Your task to perform on an android device: toggle improve location accuracy Image 0: 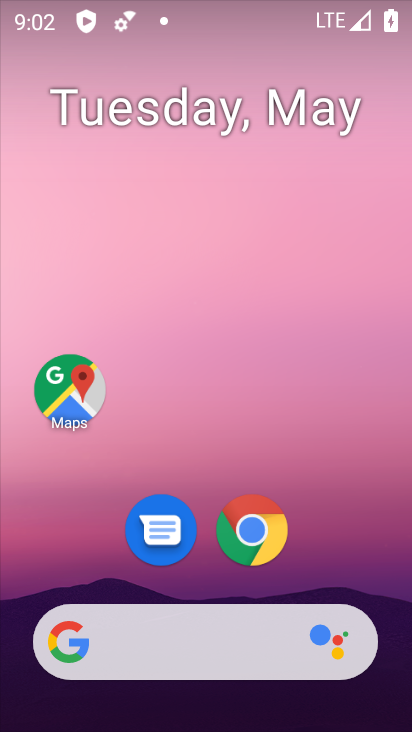
Step 0: drag from (344, 544) to (339, 172)
Your task to perform on an android device: toggle improve location accuracy Image 1: 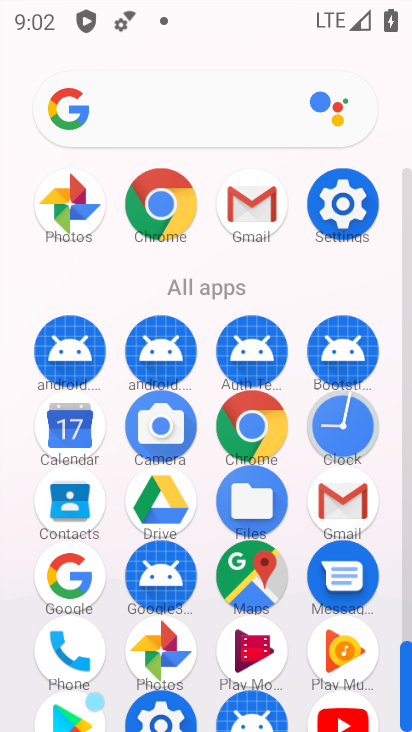
Step 1: click (380, 193)
Your task to perform on an android device: toggle improve location accuracy Image 2: 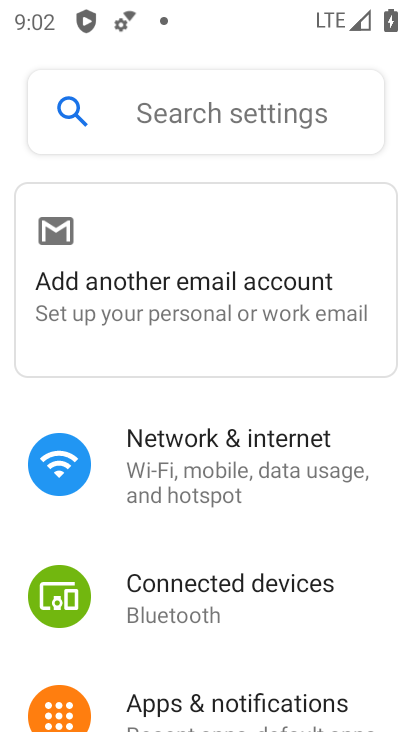
Step 2: drag from (245, 640) to (273, 124)
Your task to perform on an android device: toggle improve location accuracy Image 3: 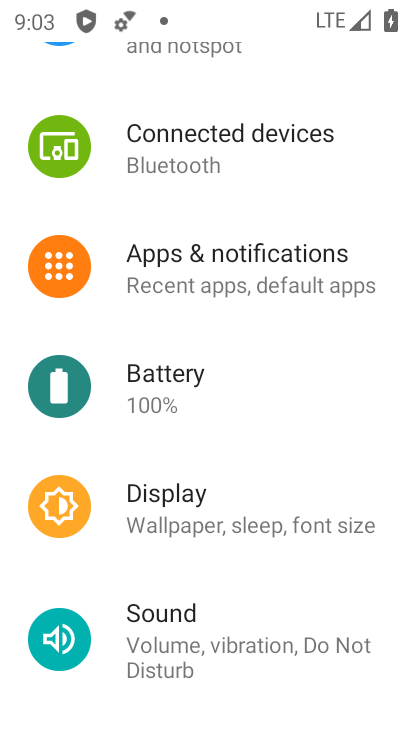
Step 3: drag from (223, 572) to (282, 143)
Your task to perform on an android device: toggle improve location accuracy Image 4: 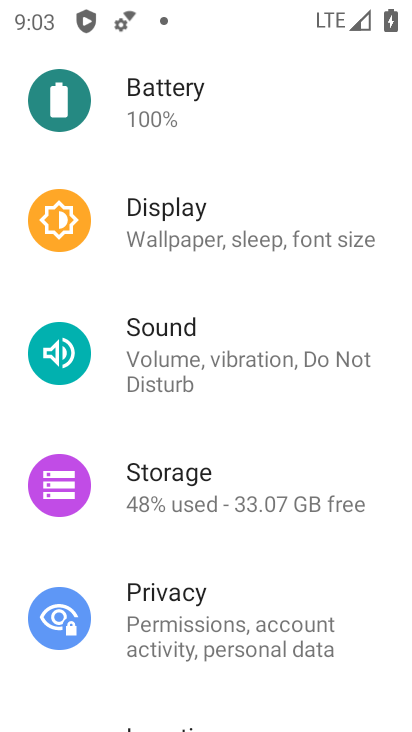
Step 4: drag from (279, 224) to (349, 34)
Your task to perform on an android device: toggle improve location accuracy Image 5: 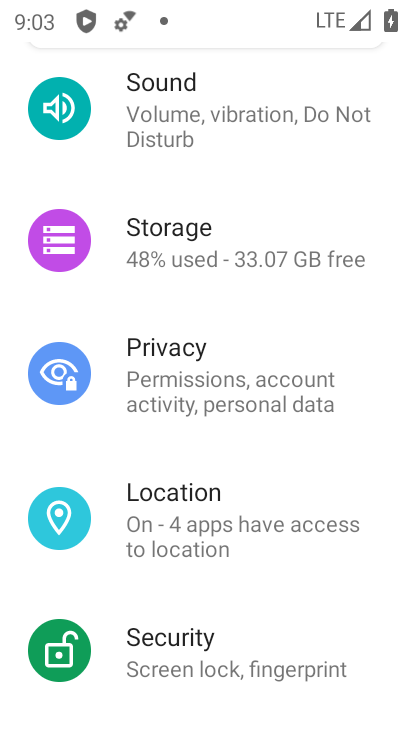
Step 5: click (196, 504)
Your task to perform on an android device: toggle improve location accuracy Image 6: 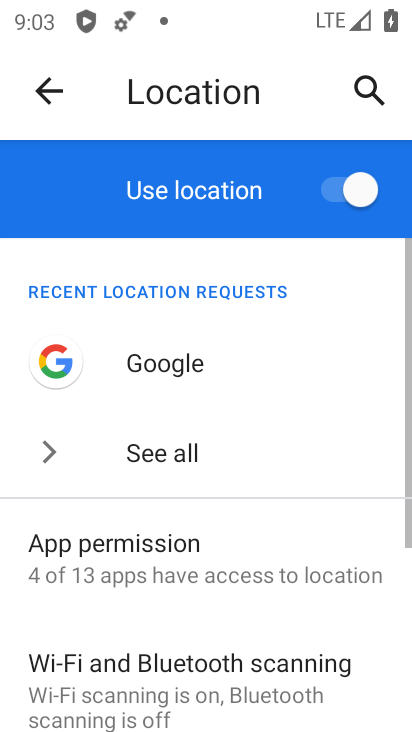
Step 6: drag from (281, 608) to (398, 68)
Your task to perform on an android device: toggle improve location accuracy Image 7: 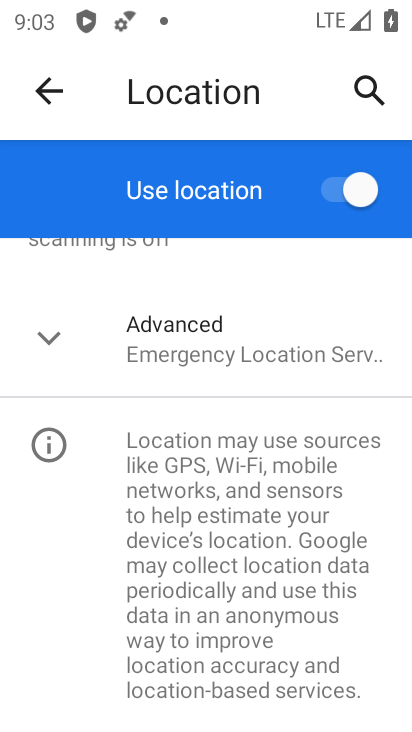
Step 7: click (218, 370)
Your task to perform on an android device: toggle improve location accuracy Image 8: 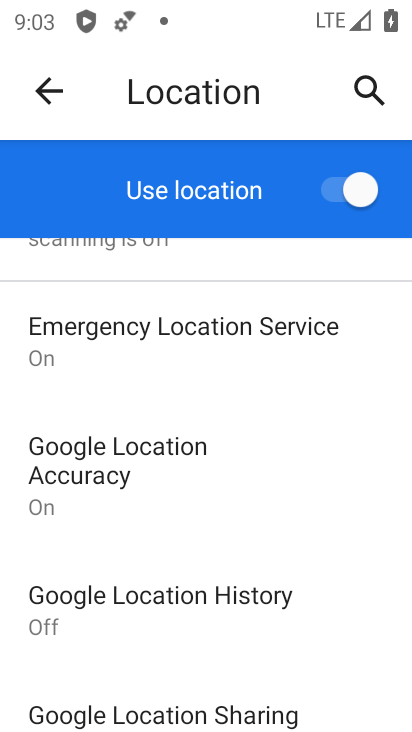
Step 8: click (122, 484)
Your task to perform on an android device: toggle improve location accuracy Image 9: 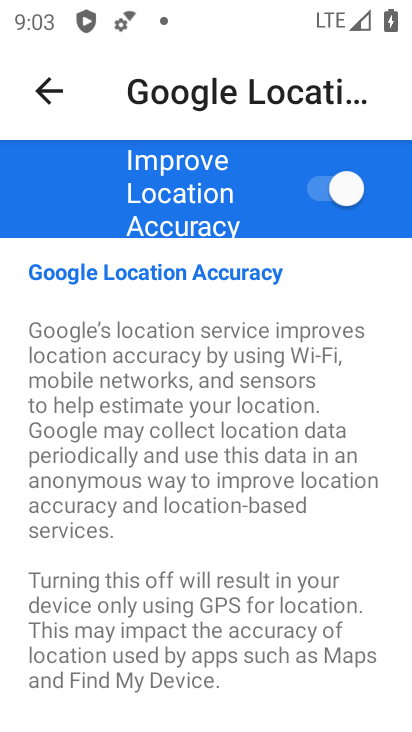
Step 9: click (341, 180)
Your task to perform on an android device: toggle improve location accuracy Image 10: 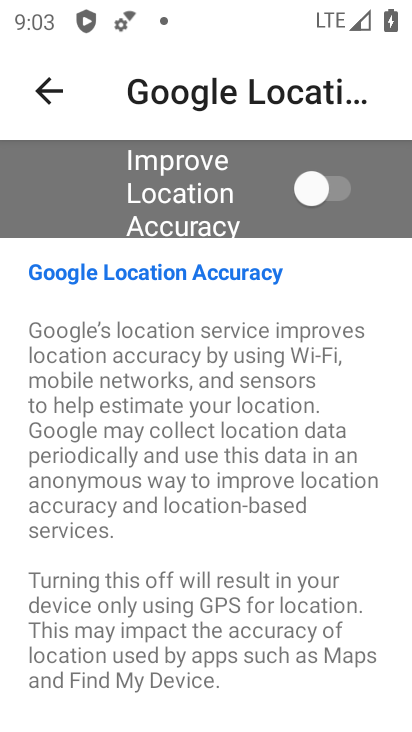
Step 10: task complete